Your task to perform on an android device: open device folders in google photos Image 0: 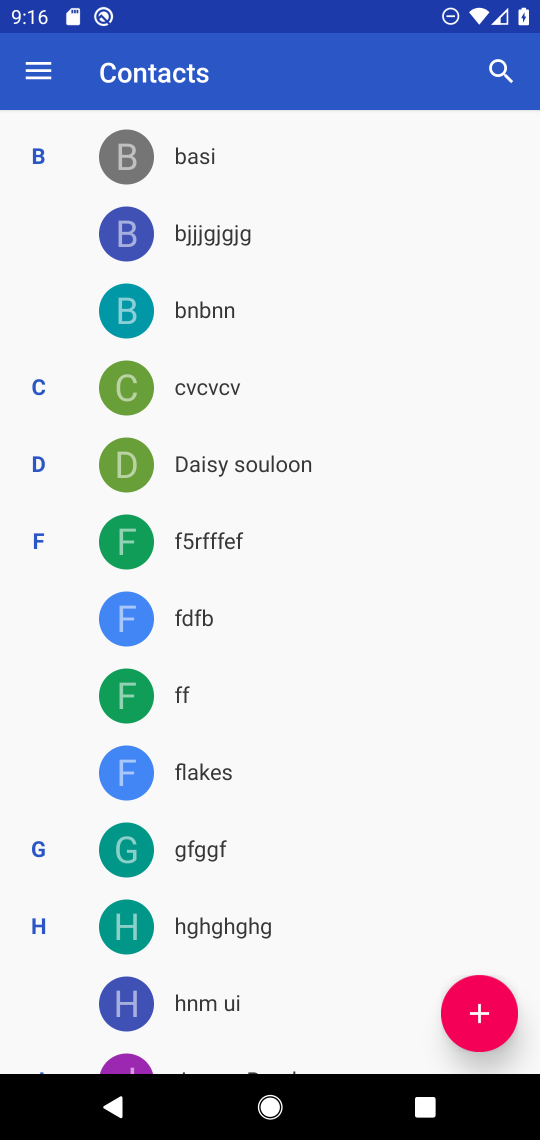
Step 0: press home button
Your task to perform on an android device: open device folders in google photos Image 1: 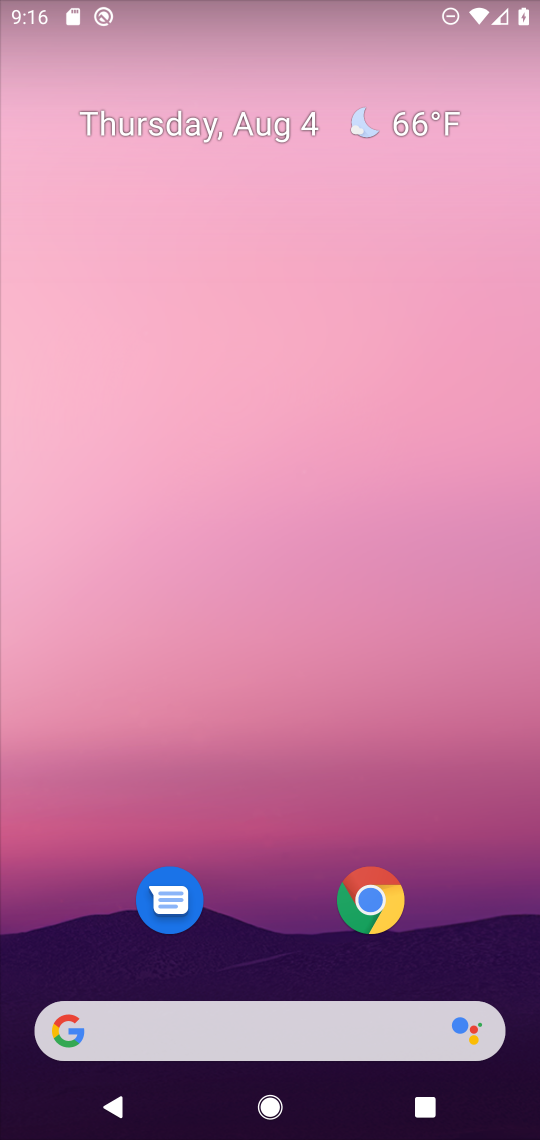
Step 1: drag from (245, 924) to (245, 304)
Your task to perform on an android device: open device folders in google photos Image 2: 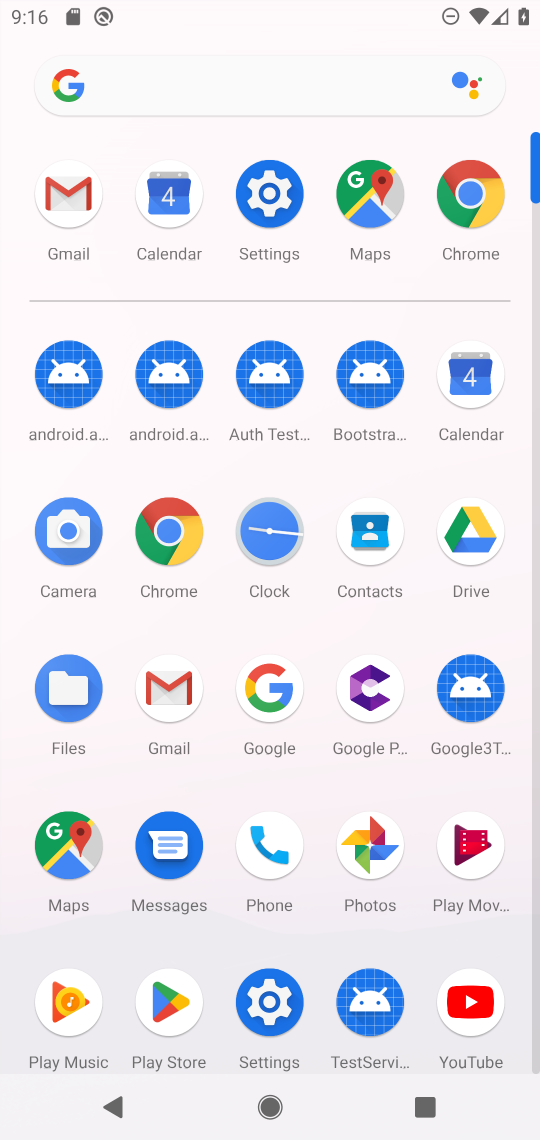
Step 2: click (373, 862)
Your task to perform on an android device: open device folders in google photos Image 3: 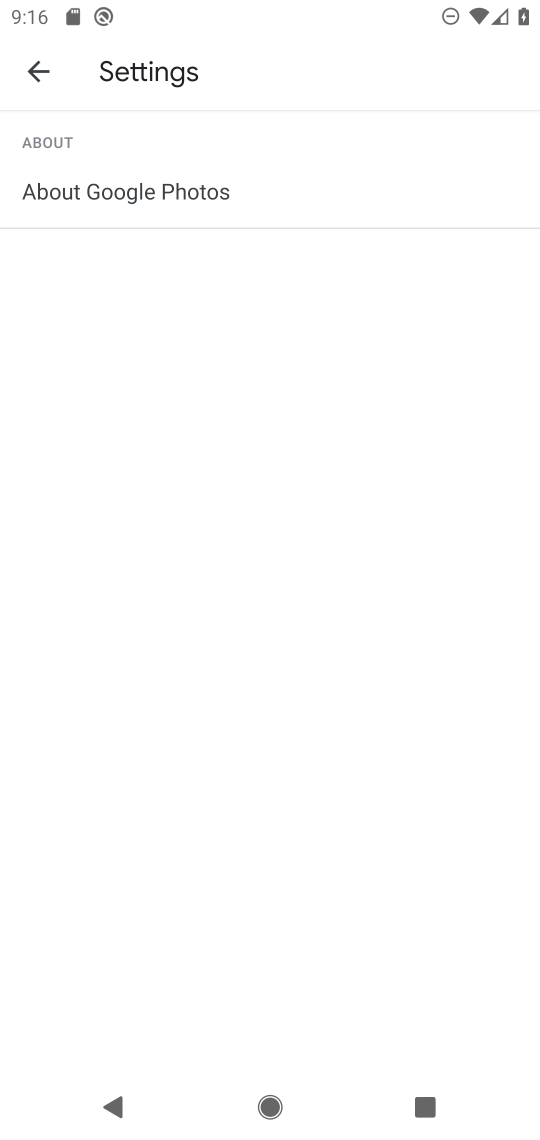
Step 3: click (44, 67)
Your task to perform on an android device: open device folders in google photos Image 4: 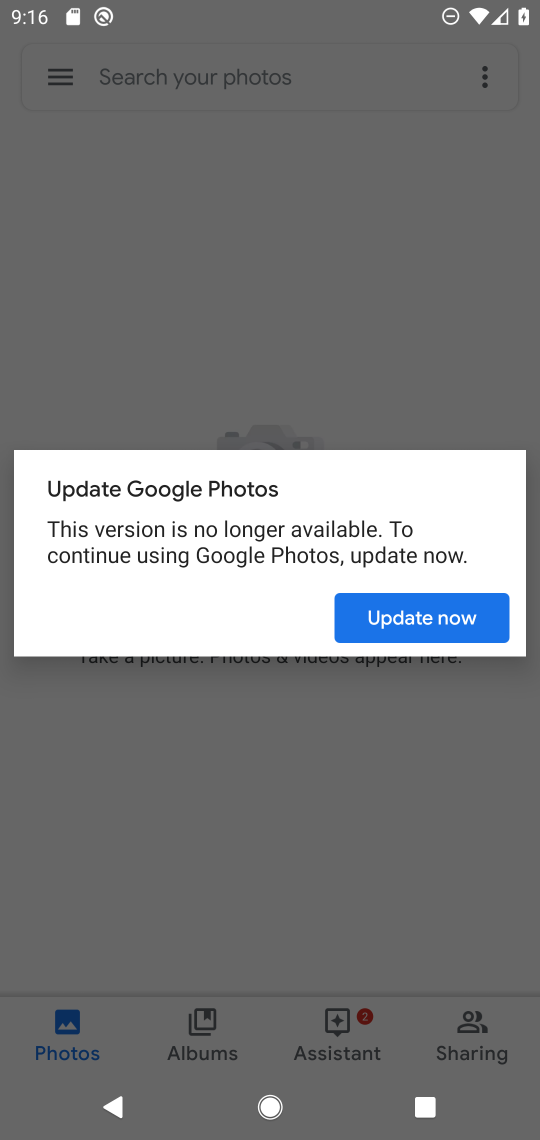
Step 4: click (438, 612)
Your task to perform on an android device: open device folders in google photos Image 5: 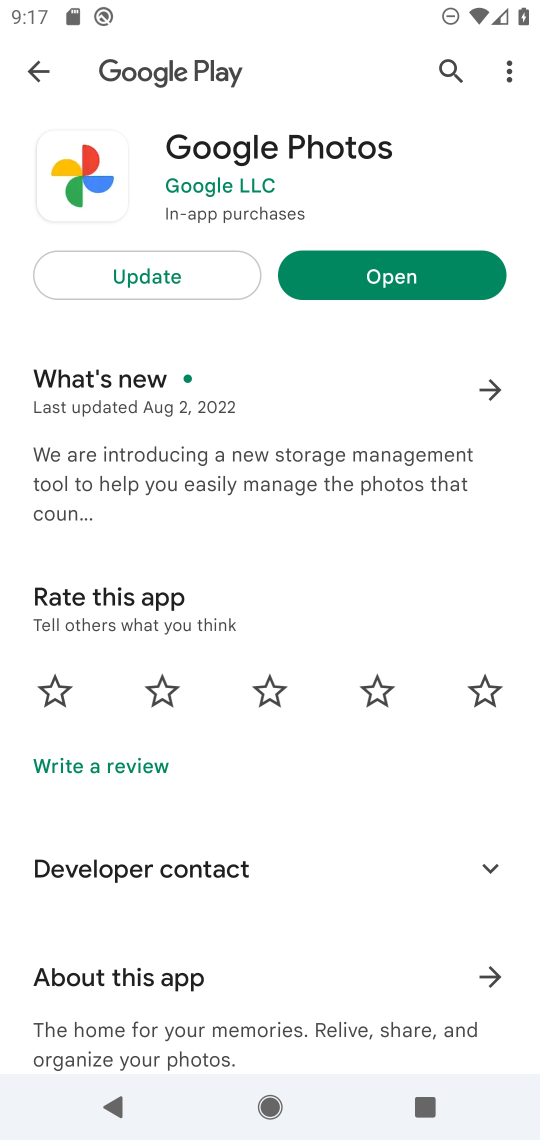
Step 5: click (127, 277)
Your task to perform on an android device: open device folders in google photos Image 6: 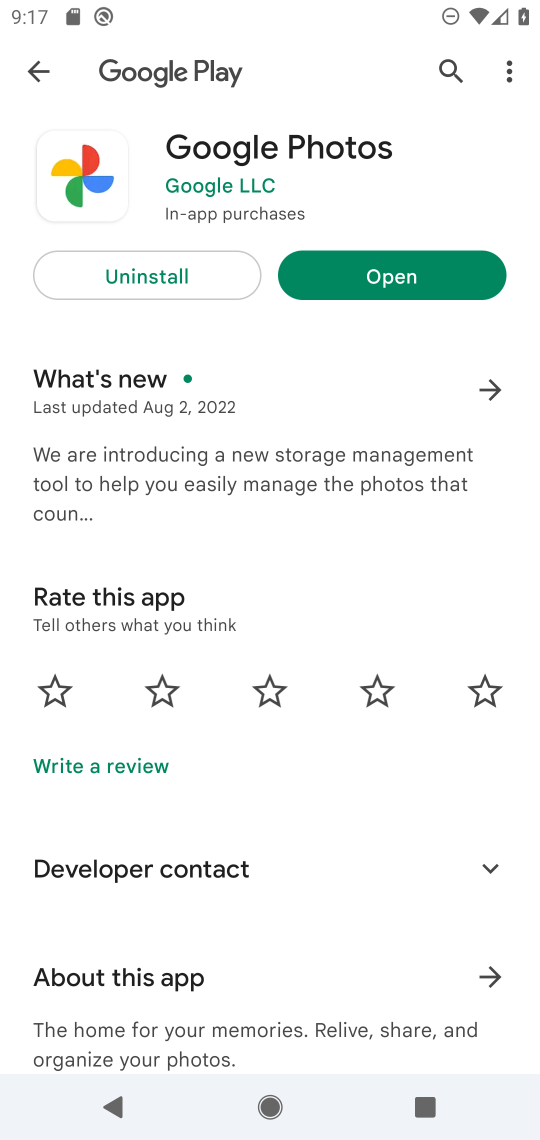
Step 6: click (351, 268)
Your task to perform on an android device: open device folders in google photos Image 7: 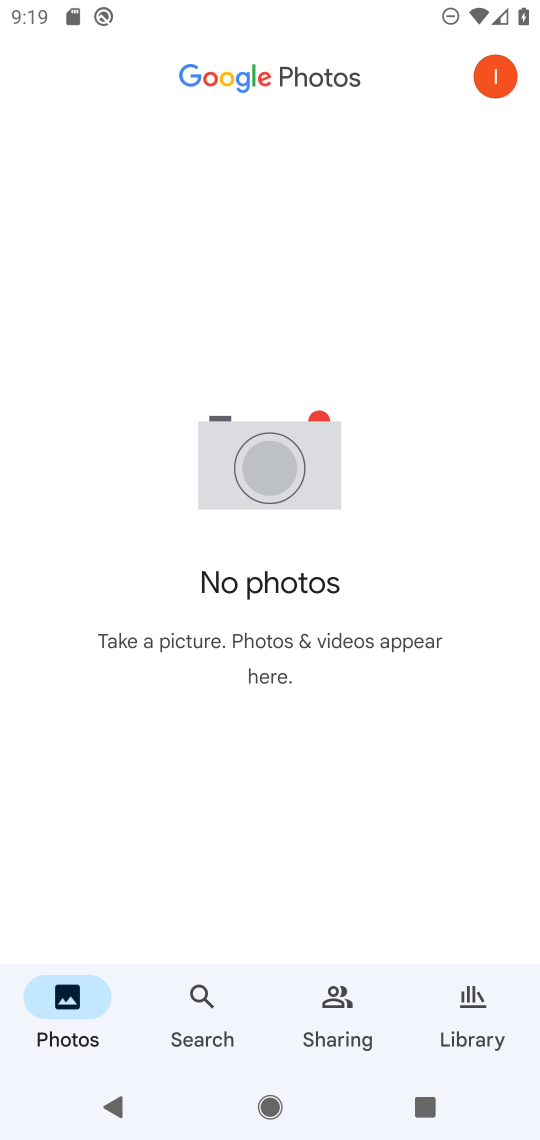
Step 7: task complete